Your task to perform on an android device: Open calendar and show me the first week of next month Image 0: 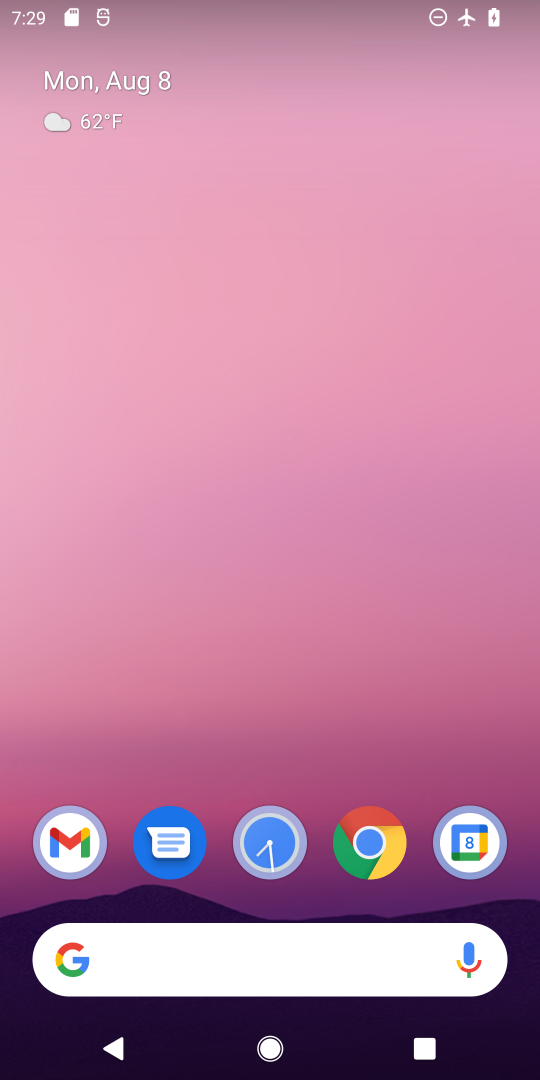
Step 0: drag from (358, 845) to (394, 25)
Your task to perform on an android device: Open calendar and show me the first week of next month Image 1: 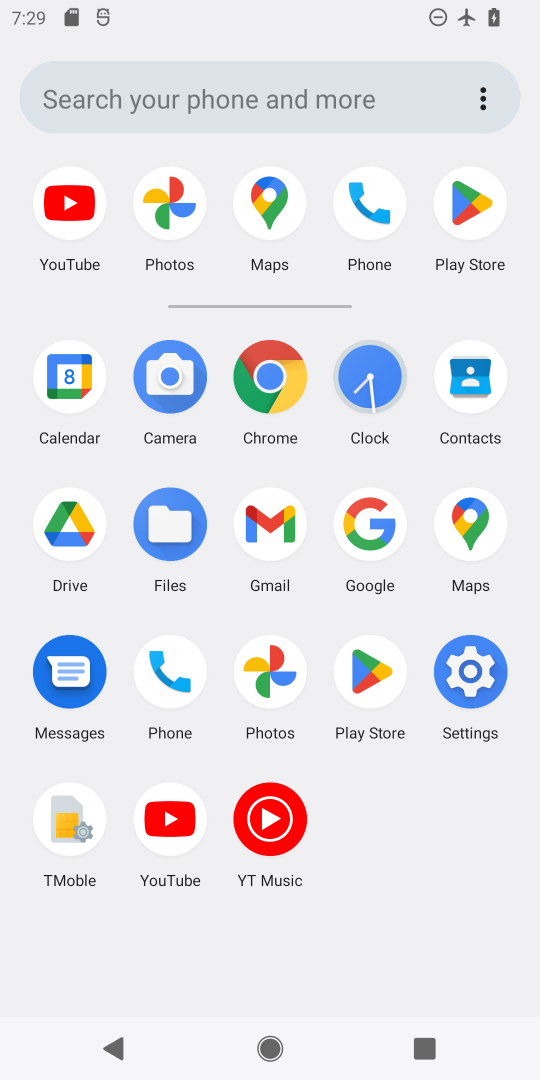
Step 1: click (47, 405)
Your task to perform on an android device: Open calendar and show me the first week of next month Image 2: 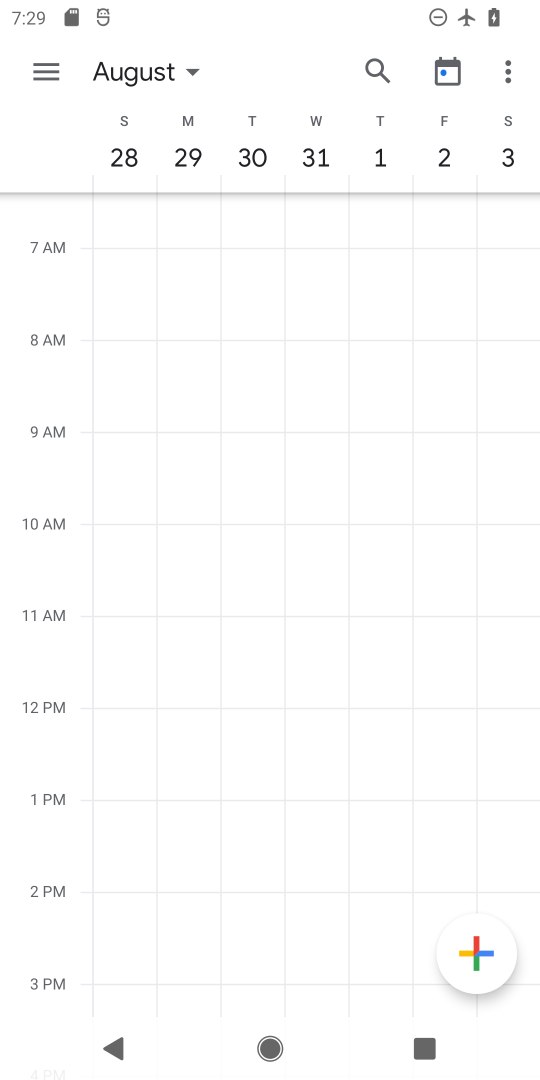
Step 2: click (414, 175)
Your task to perform on an android device: Open calendar and show me the first week of next month Image 3: 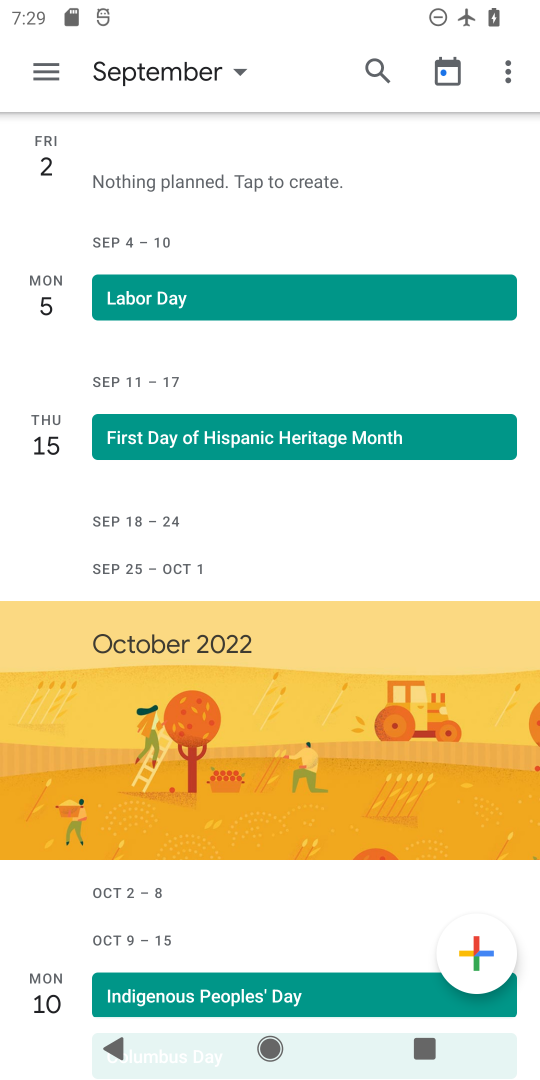
Step 3: task complete